Your task to perform on an android device: Go to ESPN.com Image 0: 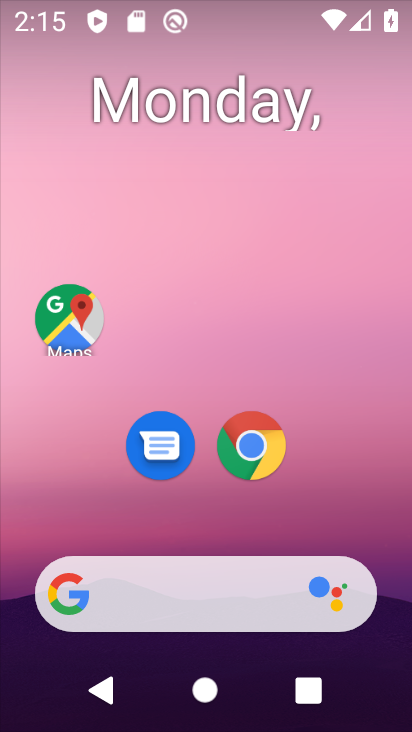
Step 0: drag from (306, 519) to (288, 14)
Your task to perform on an android device: Go to ESPN.com Image 1: 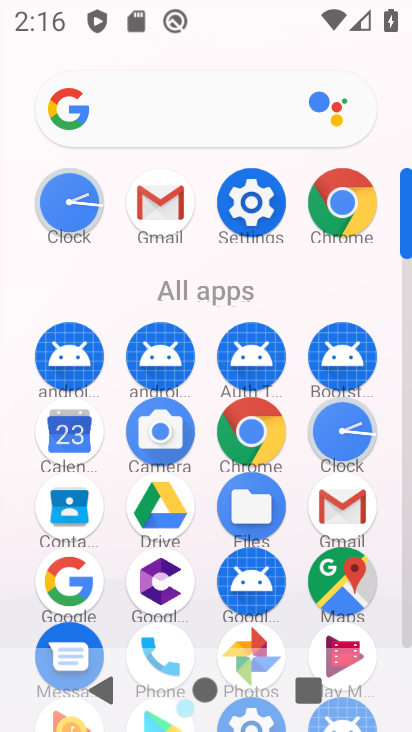
Step 1: drag from (15, 566) to (4, 168)
Your task to perform on an android device: Go to ESPN.com Image 2: 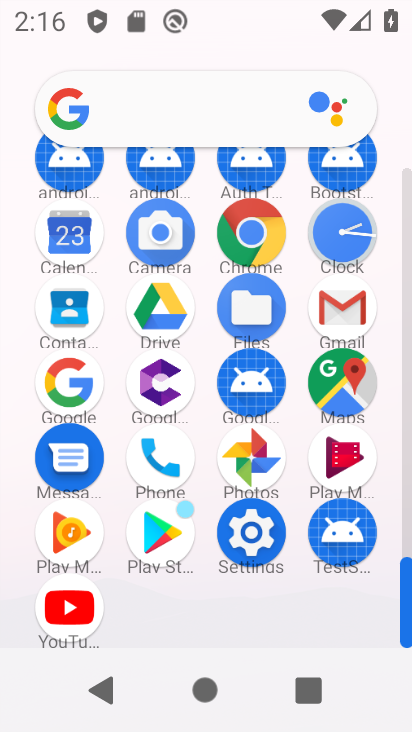
Step 2: click (251, 227)
Your task to perform on an android device: Go to ESPN.com Image 3: 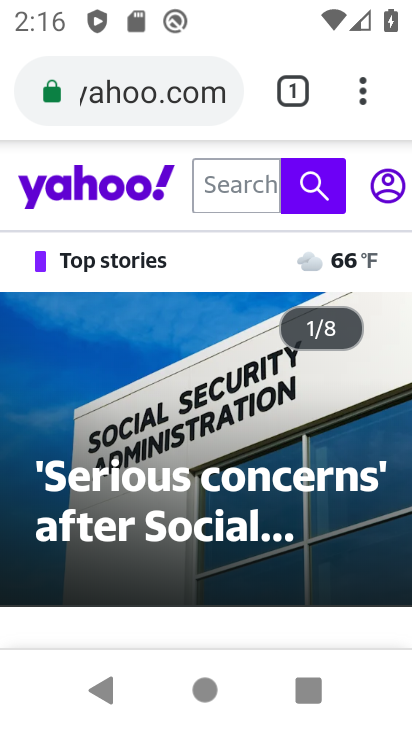
Step 3: click (145, 103)
Your task to perform on an android device: Go to ESPN.com Image 4: 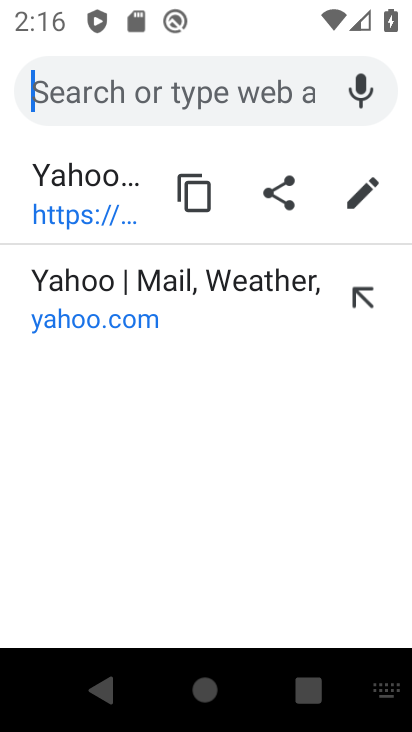
Step 4: type "ESPN.com"
Your task to perform on an android device: Go to ESPN.com Image 5: 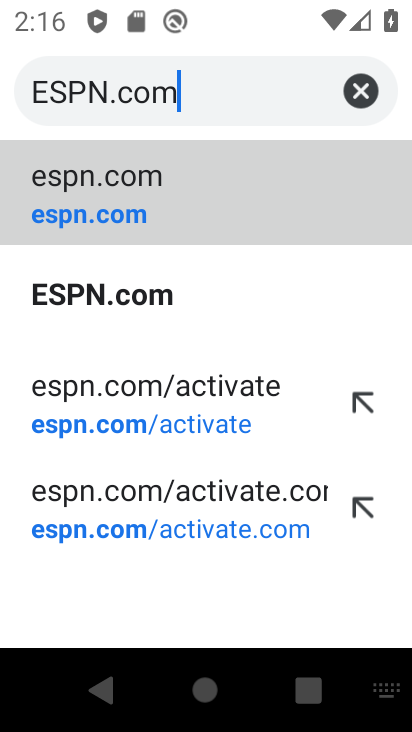
Step 5: type ""
Your task to perform on an android device: Go to ESPN.com Image 6: 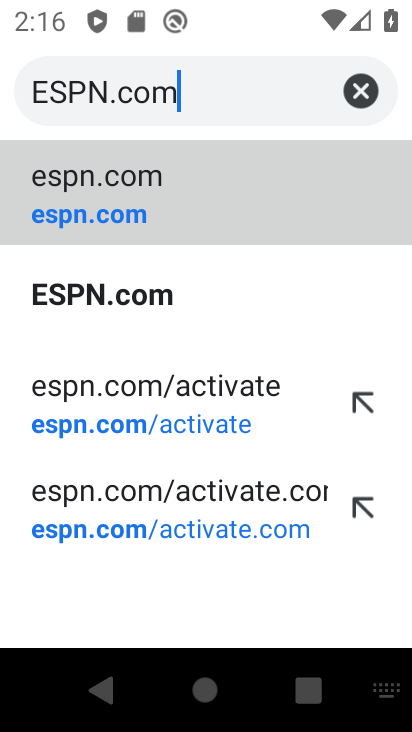
Step 6: click (101, 198)
Your task to perform on an android device: Go to ESPN.com Image 7: 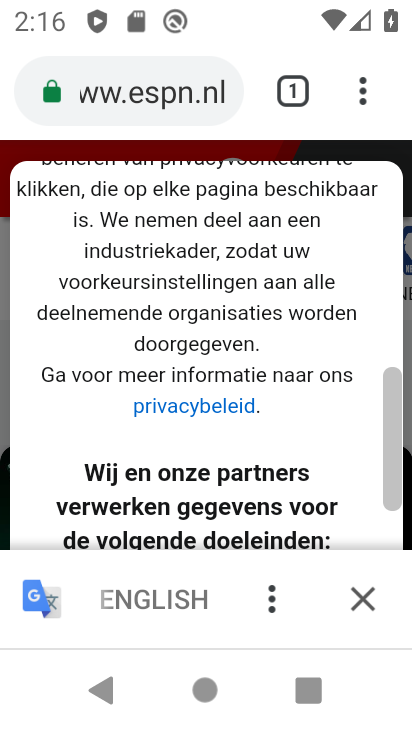
Step 7: drag from (227, 451) to (276, 195)
Your task to perform on an android device: Go to ESPN.com Image 8: 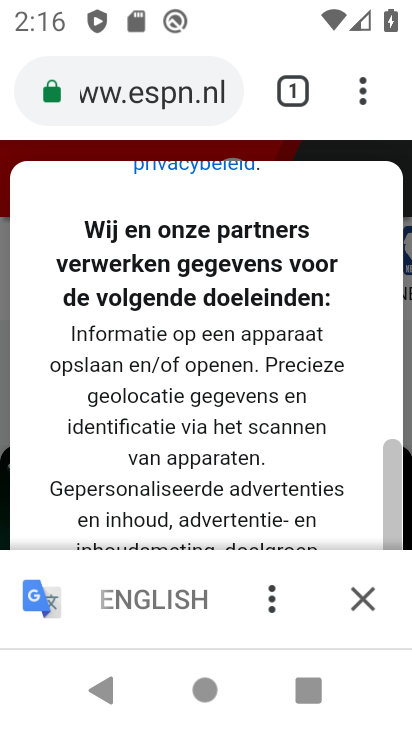
Step 8: click (366, 594)
Your task to perform on an android device: Go to ESPN.com Image 9: 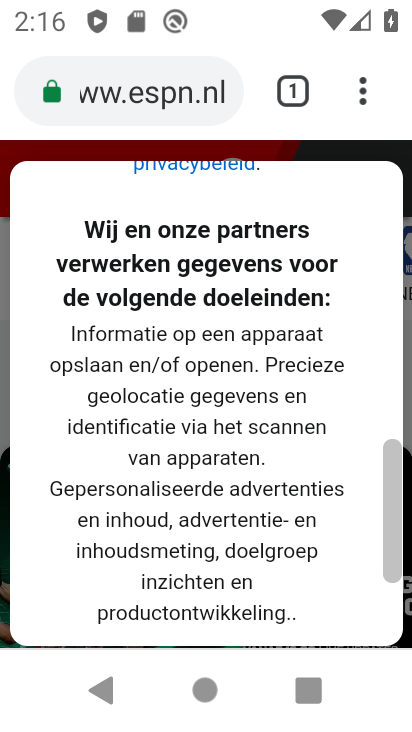
Step 9: task complete